Your task to perform on an android device: open wifi settings Image 0: 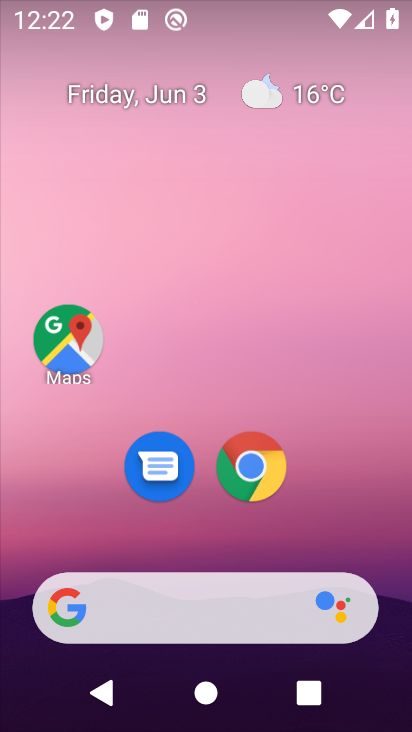
Step 0: drag from (121, 592) to (205, 57)
Your task to perform on an android device: open wifi settings Image 1: 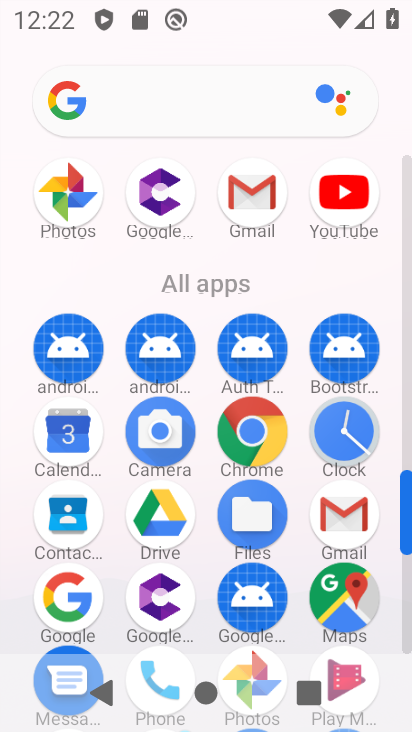
Step 1: drag from (197, 578) to (266, 225)
Your task to perform on an android device: open wifi settings Image 2: 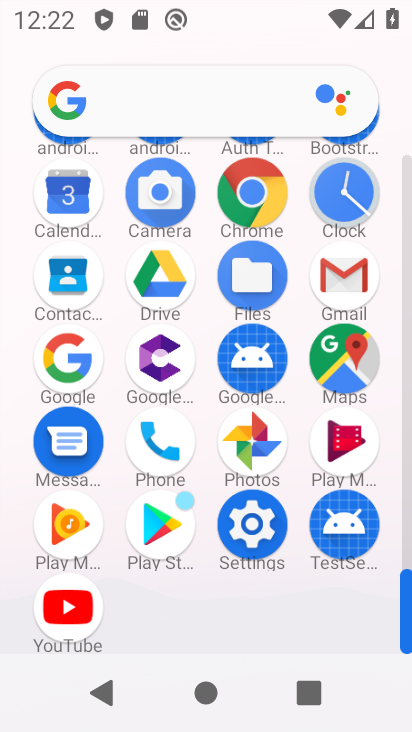
Step 2: click (239, 537)
Your task to perform on an android device: open wifi settings Image 3: 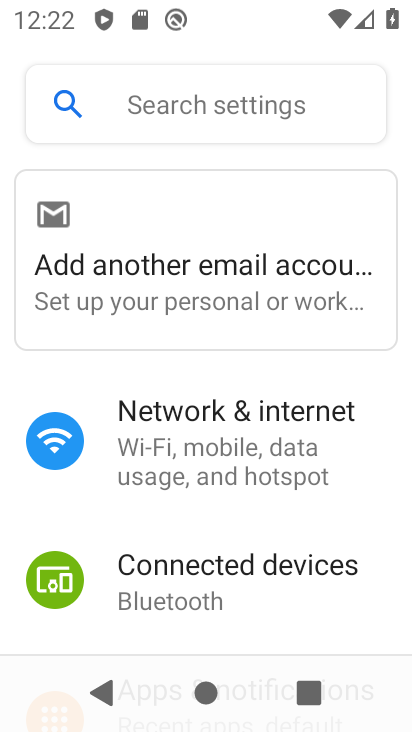
Step 3: click (248, 423)
Your task to perform on an android device: open wifi settings Image 4: 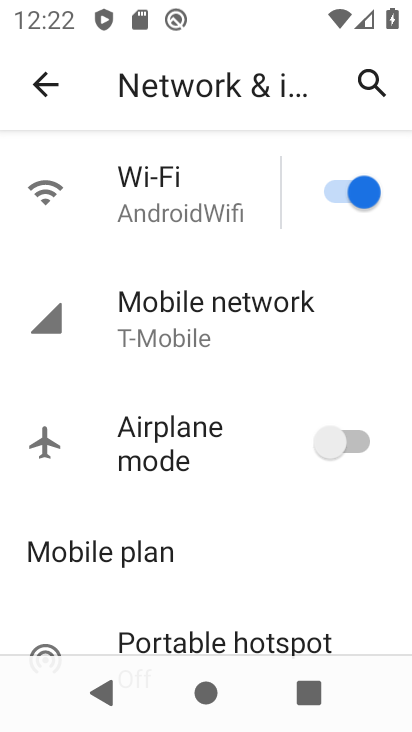
Step 4: click (219, 221)
Your task to perform on an android device: open wifi settings Image 5: 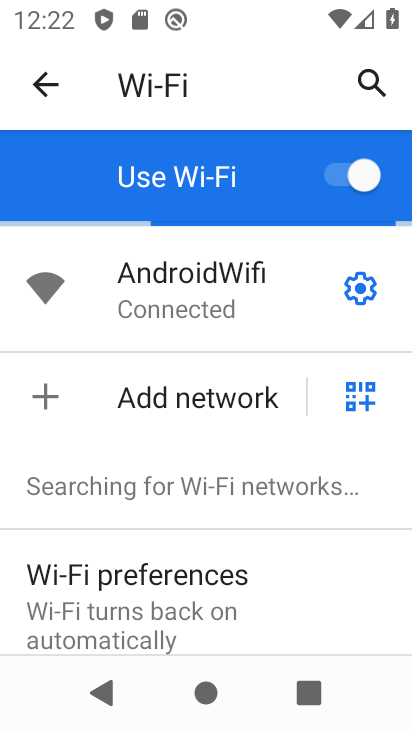
Step 5: task complete